Your task to perform on an android device: Open Wikipedia Image 0: 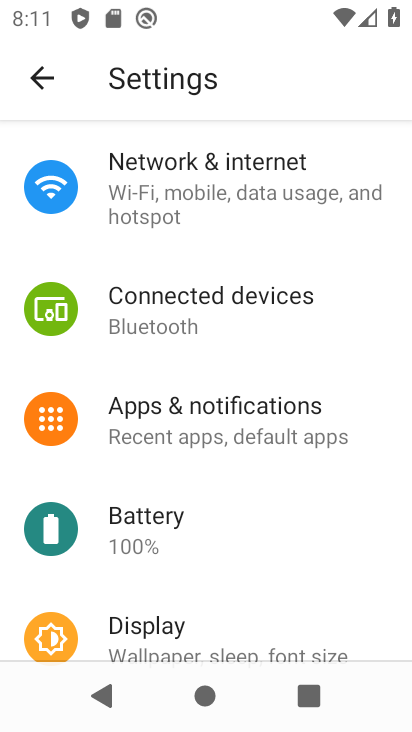
Step 0: press home button
Your task to perform on an android device: Open Wikipedia Image 1: 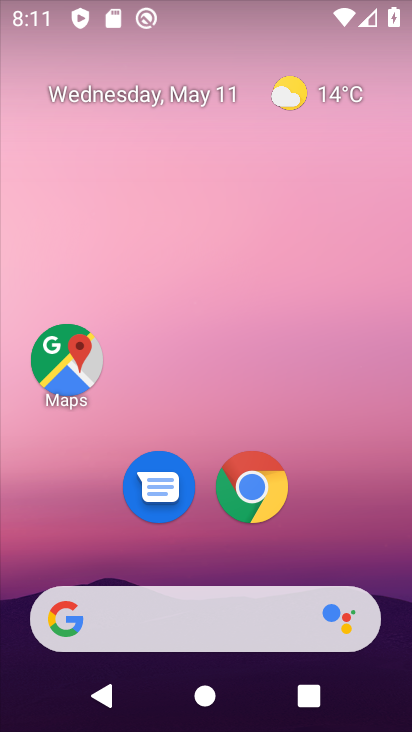
Step 1: click (268, 491)
Your task to perform on an android device: Open Wikipedia Image 2: 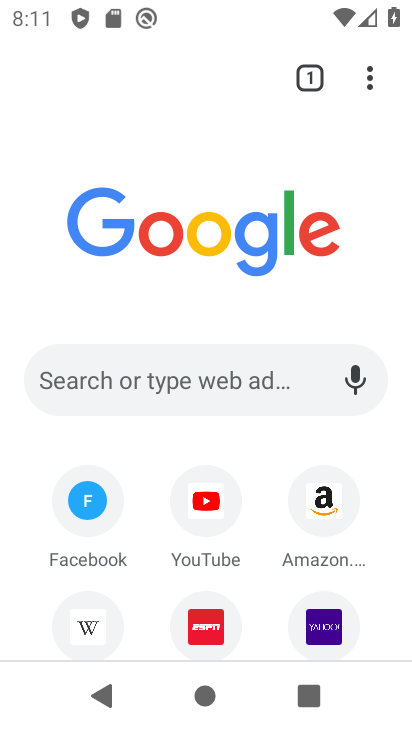
Step 2: click (98, 635)
Your task to perform on an android device: Open Wikipedia Image 3: 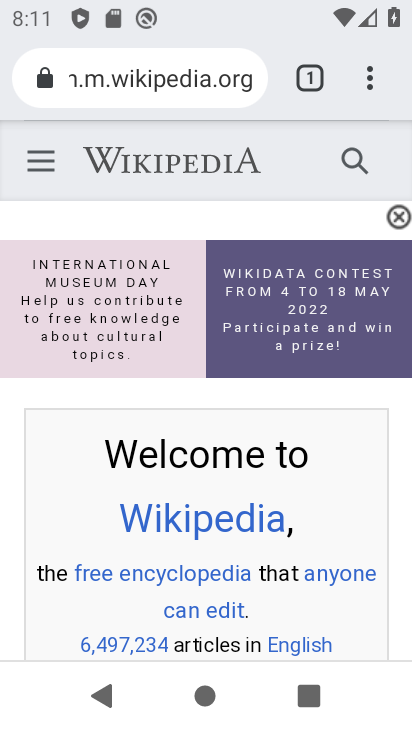
Step 3: task complete